Your task to perform on an android device: turn off location history Image 0: 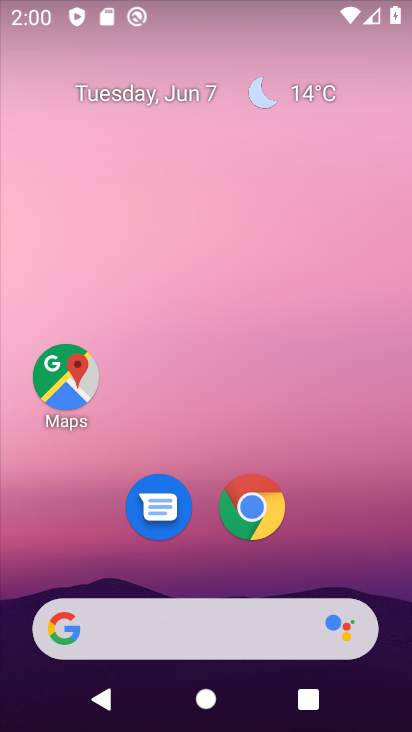
Step 0: drag from (328, 513) to (46, 41)
Your task to perform on an android device: turn off location history Image 1: 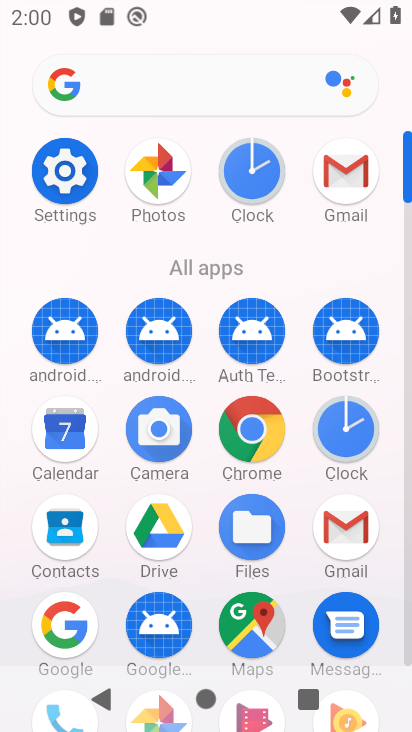
Step 1: click (70, 183)
Your task to perform on an android device: turn off location history Image 2: 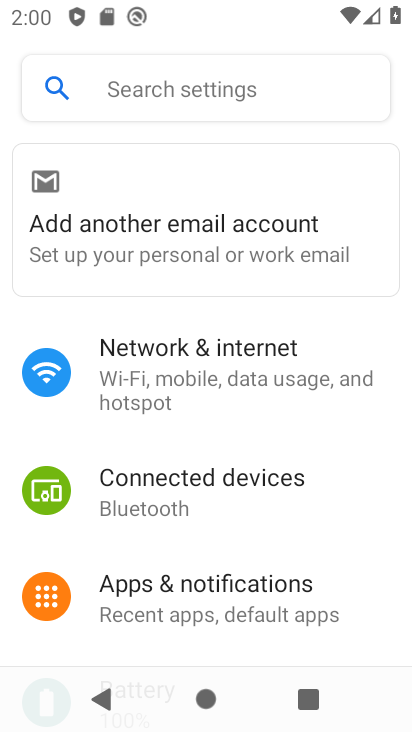
Step 2: drag from (275, 622) to (213, 63)
Your task to perform on an android device: turn off location history Image 3: 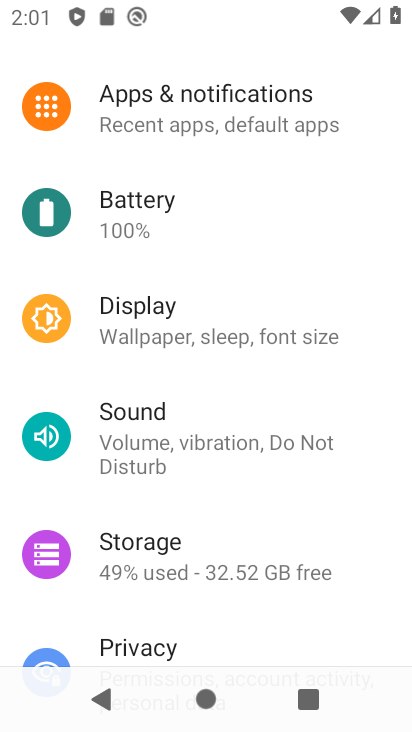
Step 3: drag from (259, 570) to (179, 202)
Your task to perform on an android device: turn off location history Image 4: 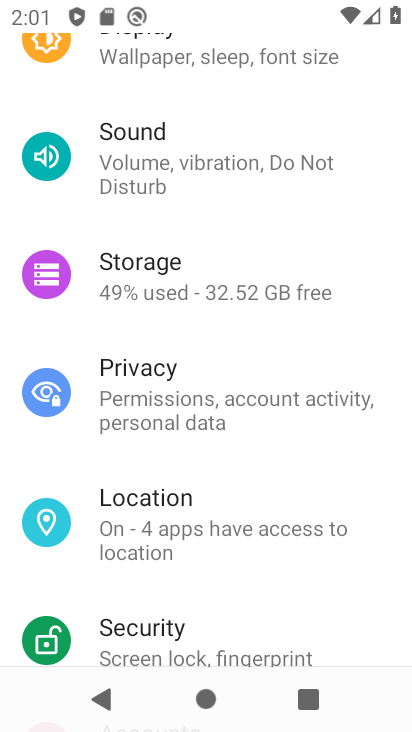
Step 4: click (159, 517)
Your task to perform on an android device: turn off location history Image 5: 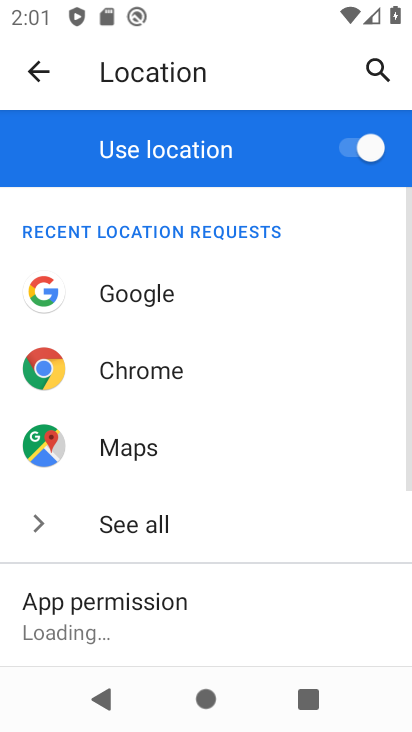
Step 5: drag from (199, 404) to (192, 123)
Your task to perform on an android device: turn off location history Image 6: 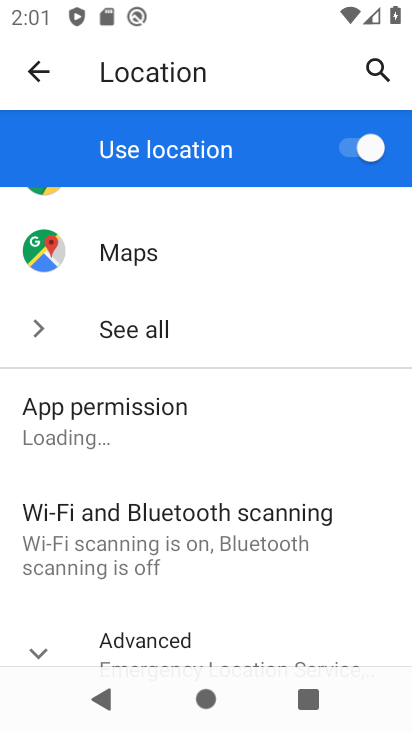
Step 6: drag from (187, 597) to (227, 141)
Your task to perform on an android device: turn off location history Image 7: 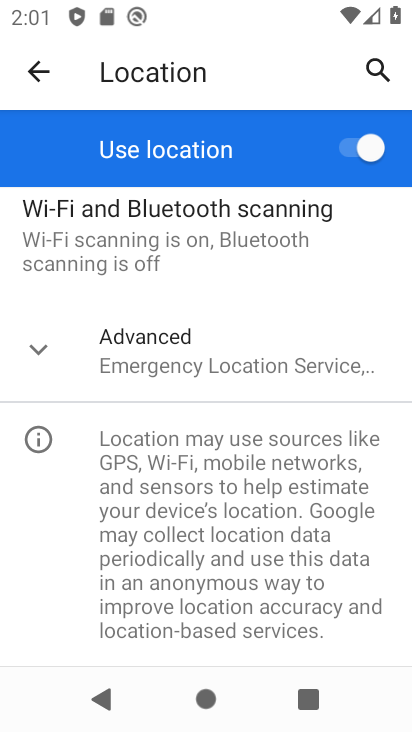
Step 7: click (202, 378)
Your task to perform on an android device: turn off location history Image 8: 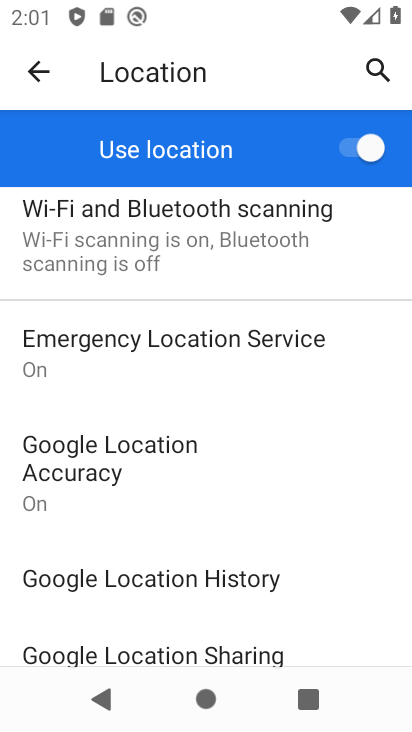
Step 8: click (237, 593)
Your task to perform on an android device: turn off location history Image 9: 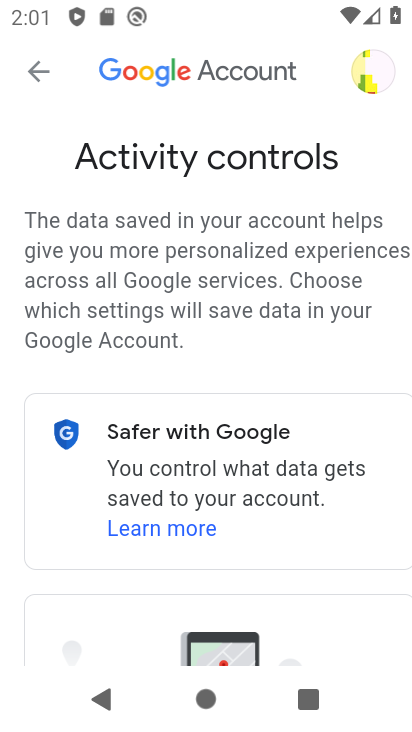
Step 9: drag from (282, 534) to (247, 1)
Your task to perform on an android device: turn off location history Image 10: 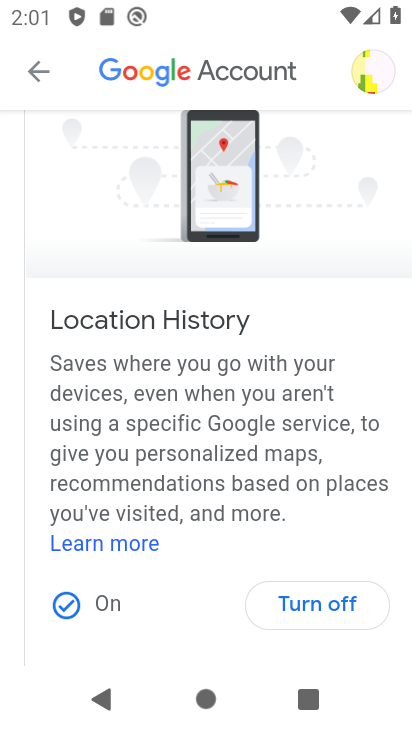
Step 10: click (359, 609)
Your task to perform on an android device: turn off location history Image 11: 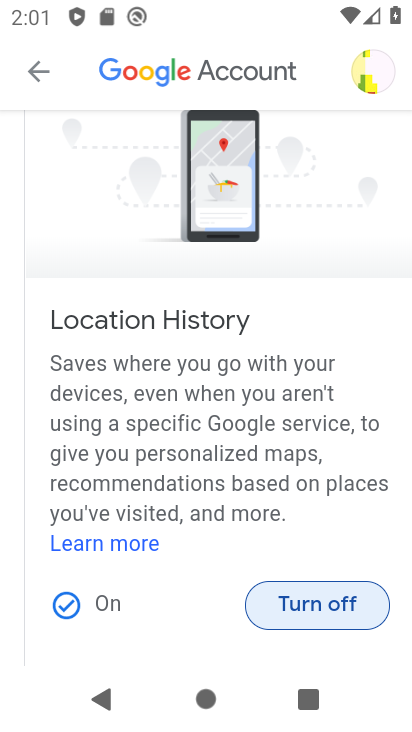
Step 11: click (314, 610)
Your task to perform on an android device: turn off location history Image 12: 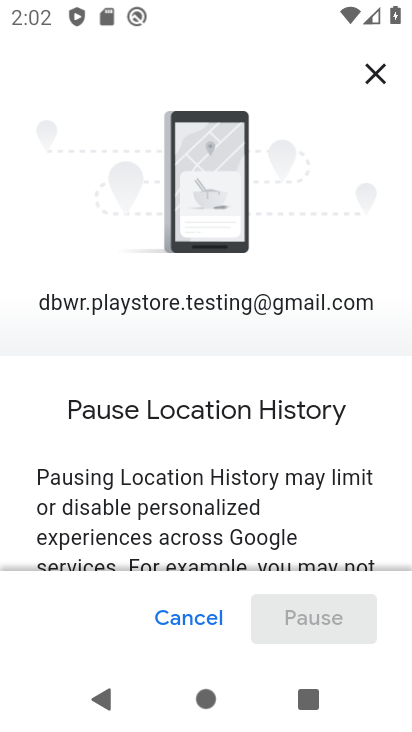
Step 12: drag from (302, 571) to (261, 42)
Your task to perform on an android device: turn off location history Image 13: 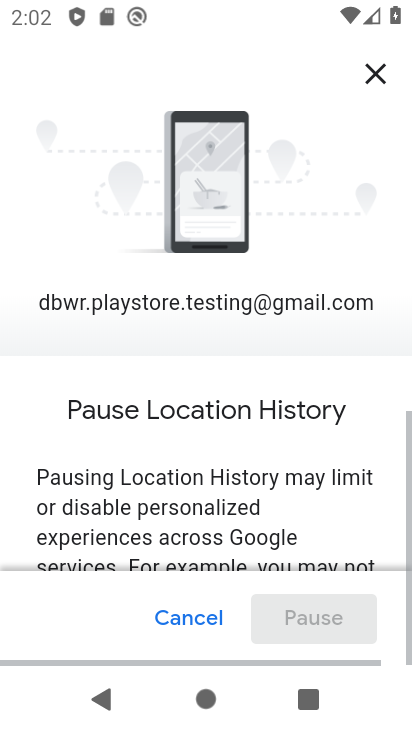
Step 13: drag from (276, 509) to (301, 44)
Your task to perform on an android device: turn off location history Image 14: 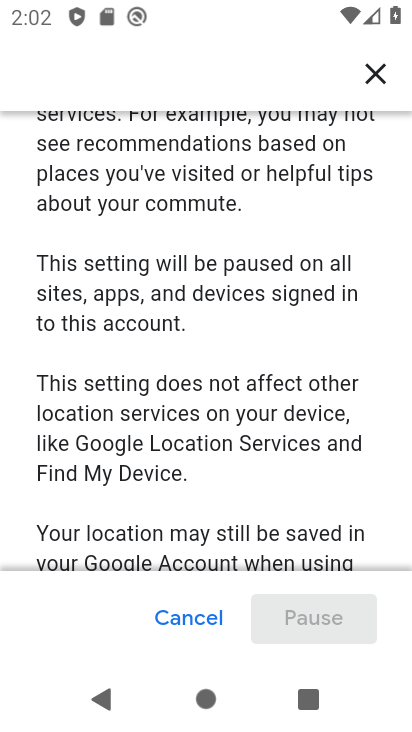
Step 14: drag from (191, 440) to (202, 43)
Your task to perform on an android device: turn off location history Image 15: 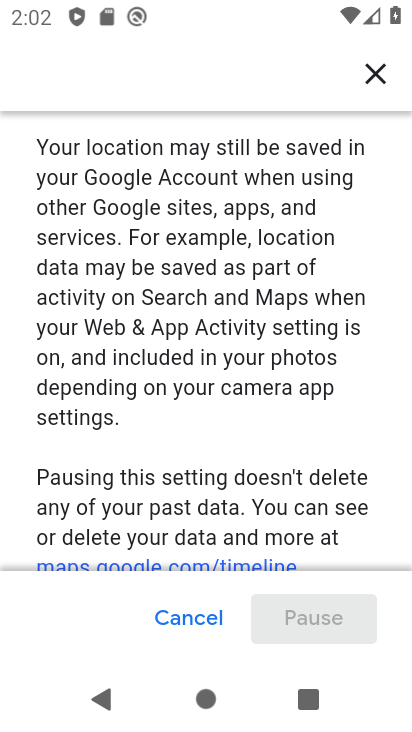
Step 15: drag from (185, 423) to (249, 82)
Your task to perform on an android device: turn off location history Image 16: 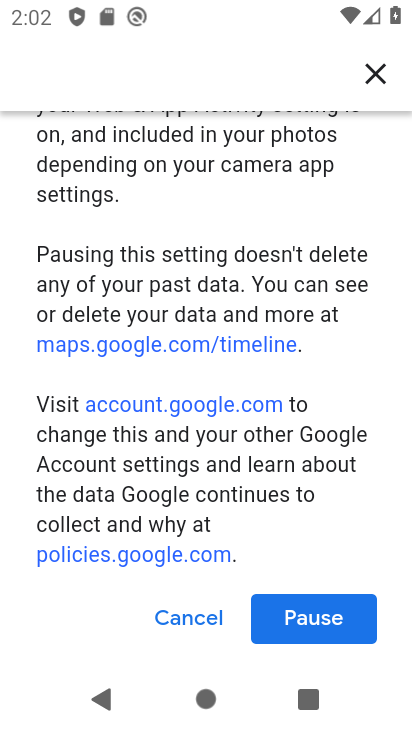
Step 16: drag from (225, 499) to (279, 128)
Your task to perform on an android device: turn off location history Image 17: 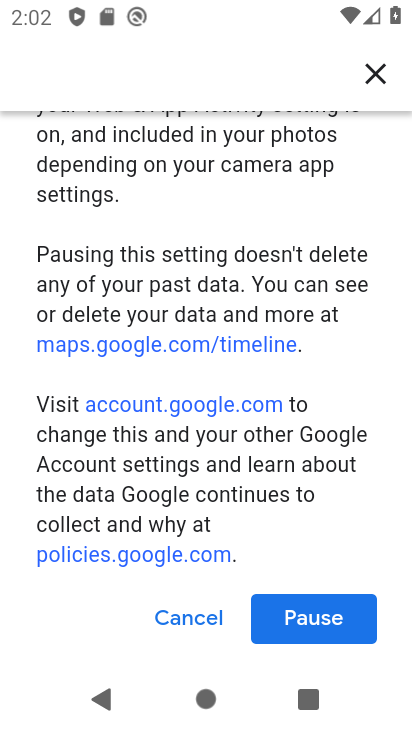
Step 17: click (349, 623)
Your task to perform on an android device: turn off location history Image 18: 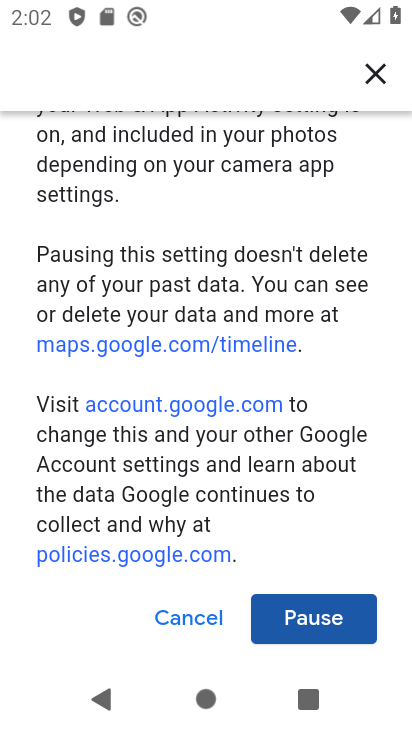
Step 18: click (336, 611)
Your task to perform on an android device: turn off location history Image 19: 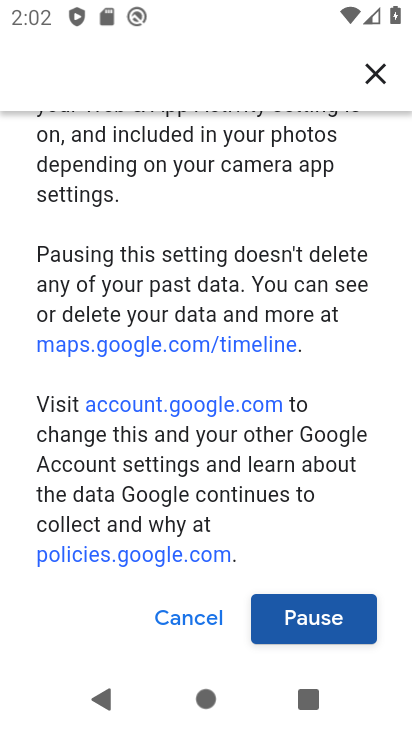
Step 19: click (328, 613)
Your task to perform on an android device: turn off location history Image 20: 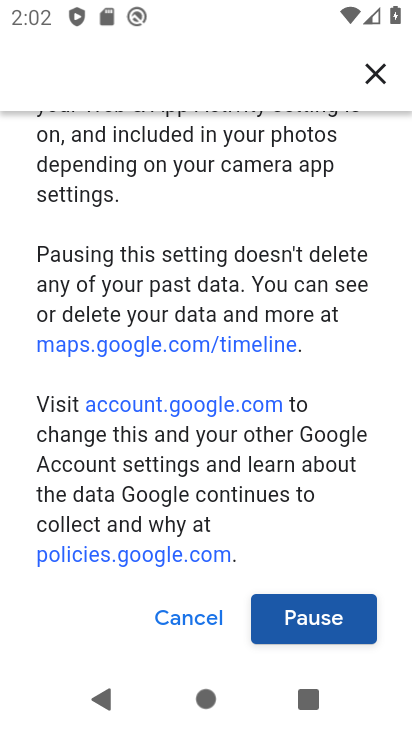
Step 20: click (327, 613)
Your task to perform on an android device: turn off location history Image 21: 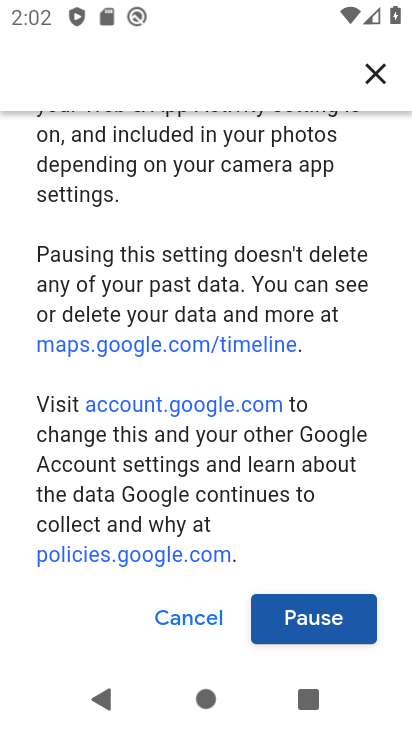
Step 21: click (328, 613)
Your task to perform on an android device: turn off location history Image 22: 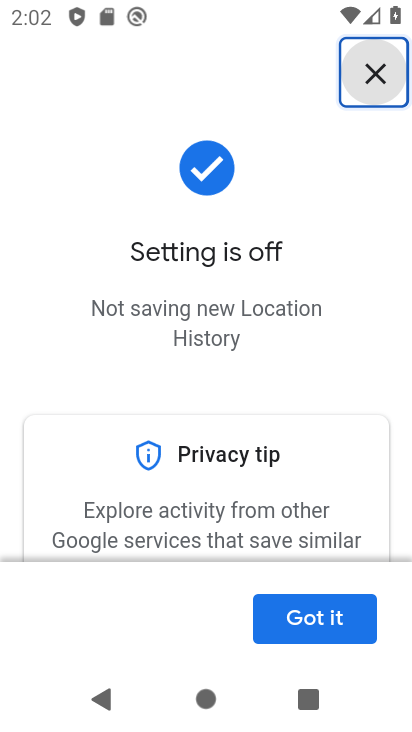
Step 22: task complete